Your task to perform on an android device: View the shopping cart on amazon.com. Search for usb-b on amazon.com, select the first entry, add it to the cart, then select checkout. Image 0: 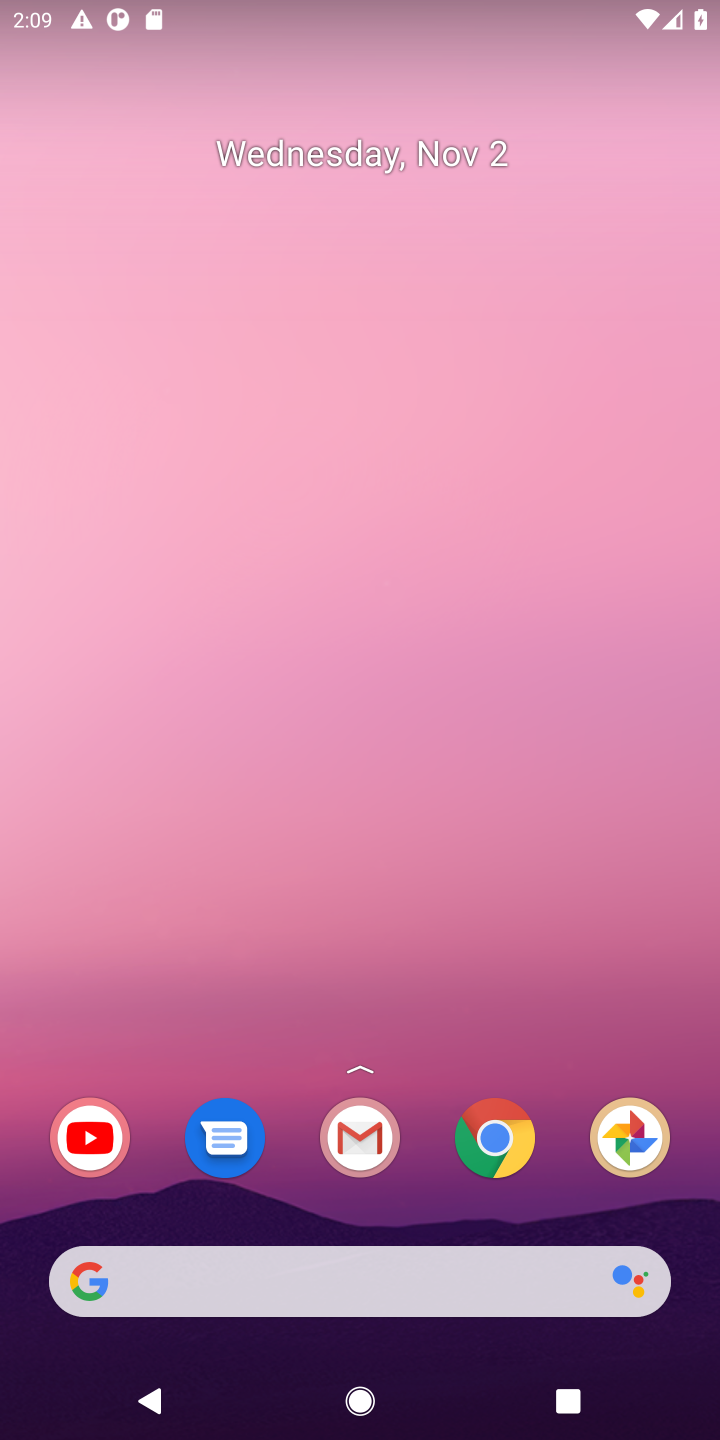
Step 0: press home button
Your task to perform on an android device: View the shopping cart on amazon.com. Search for usb-b on amazon.com, select the first entry, add it to the cart, then select checkout. Image 1: 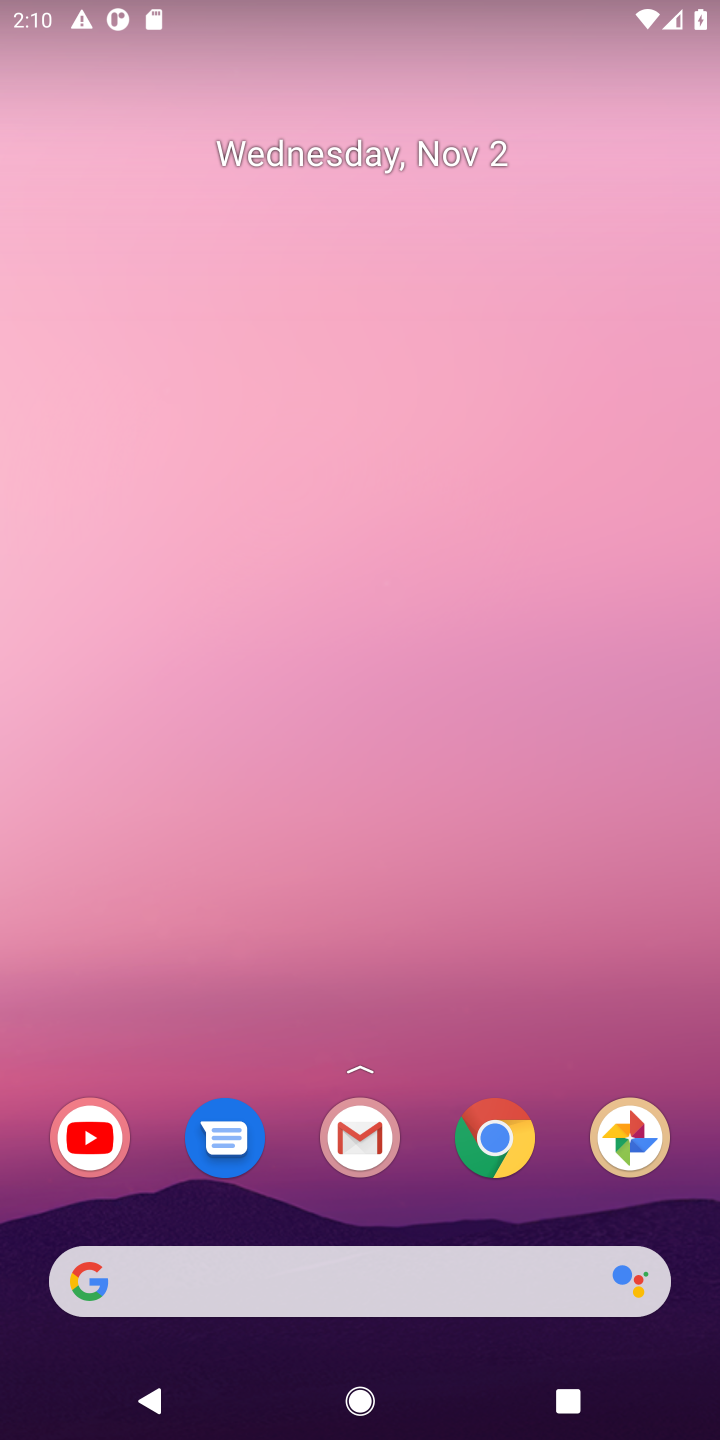
Step 1: click (136, 1274)
Your task to perform on an android device: View the shopping cart on amazon.com. Search for usb-b on amazon.com, select the first entry, add it to the cart, then select checkout. Image 2: 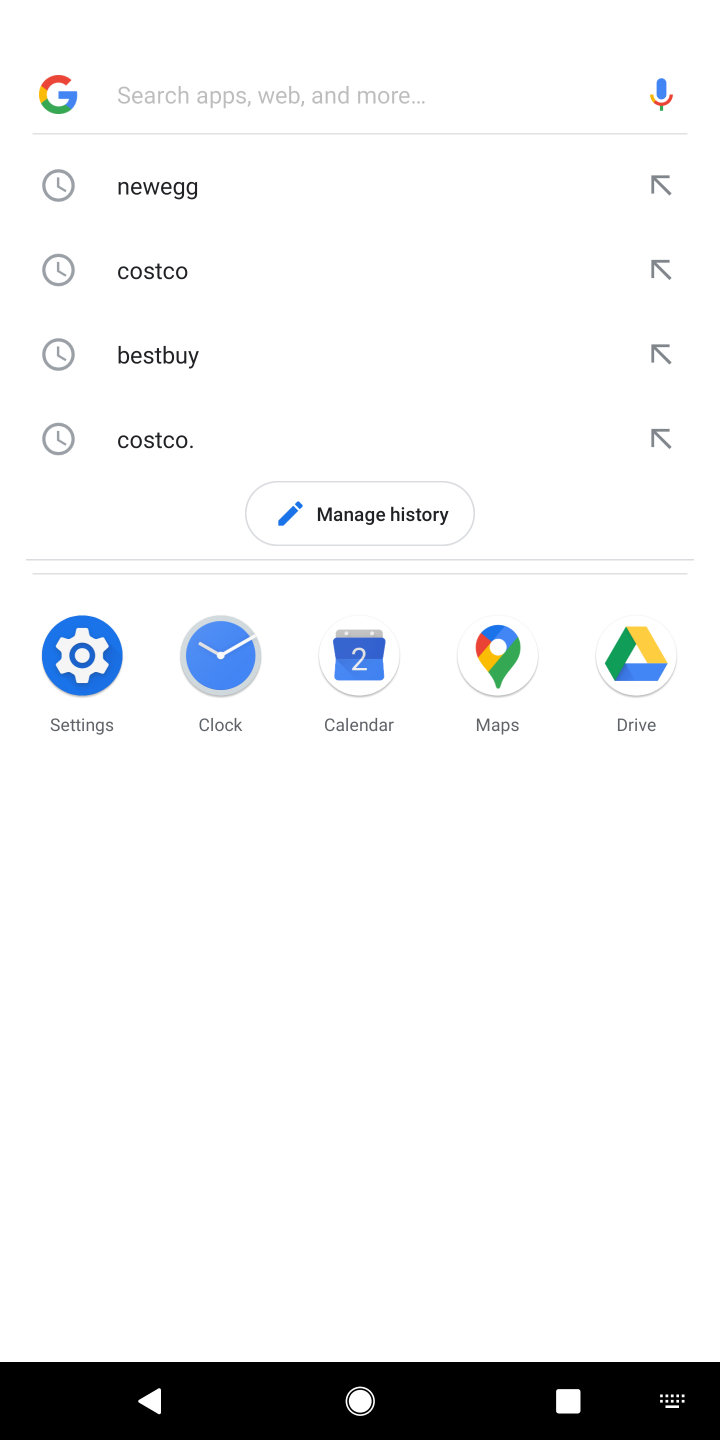
Step 2: type " amazon.com"
Your task to perform on an android device: View the shopping cart on amazon.com. Search for usb-b on amazon.com, select the first entry, add it to the cart, then select checkout. Image 3: 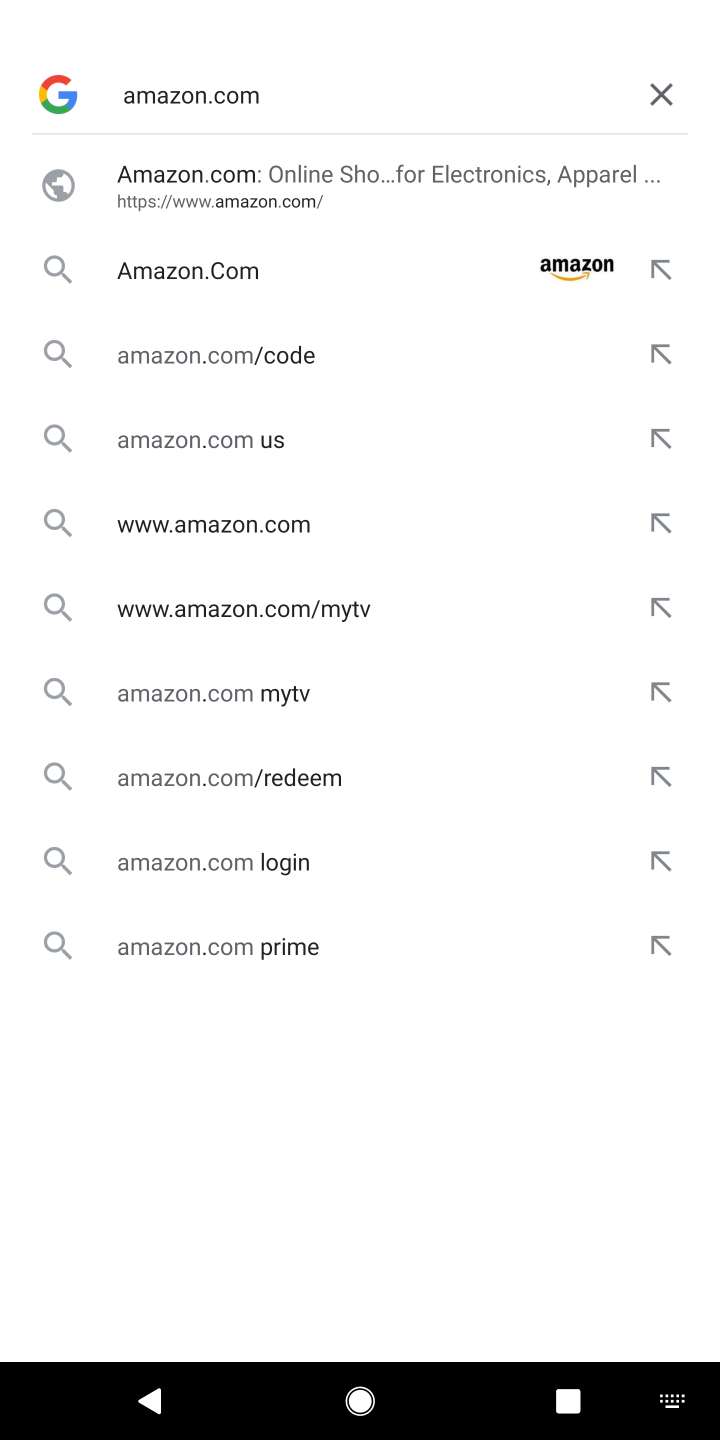
Step 3: press enter
Your task to perform on an android device: View the shopping cart on amazon.com. Search for usb-b on amazon.com, select the first entry, add it to the cart, then select checkout. Image 4: 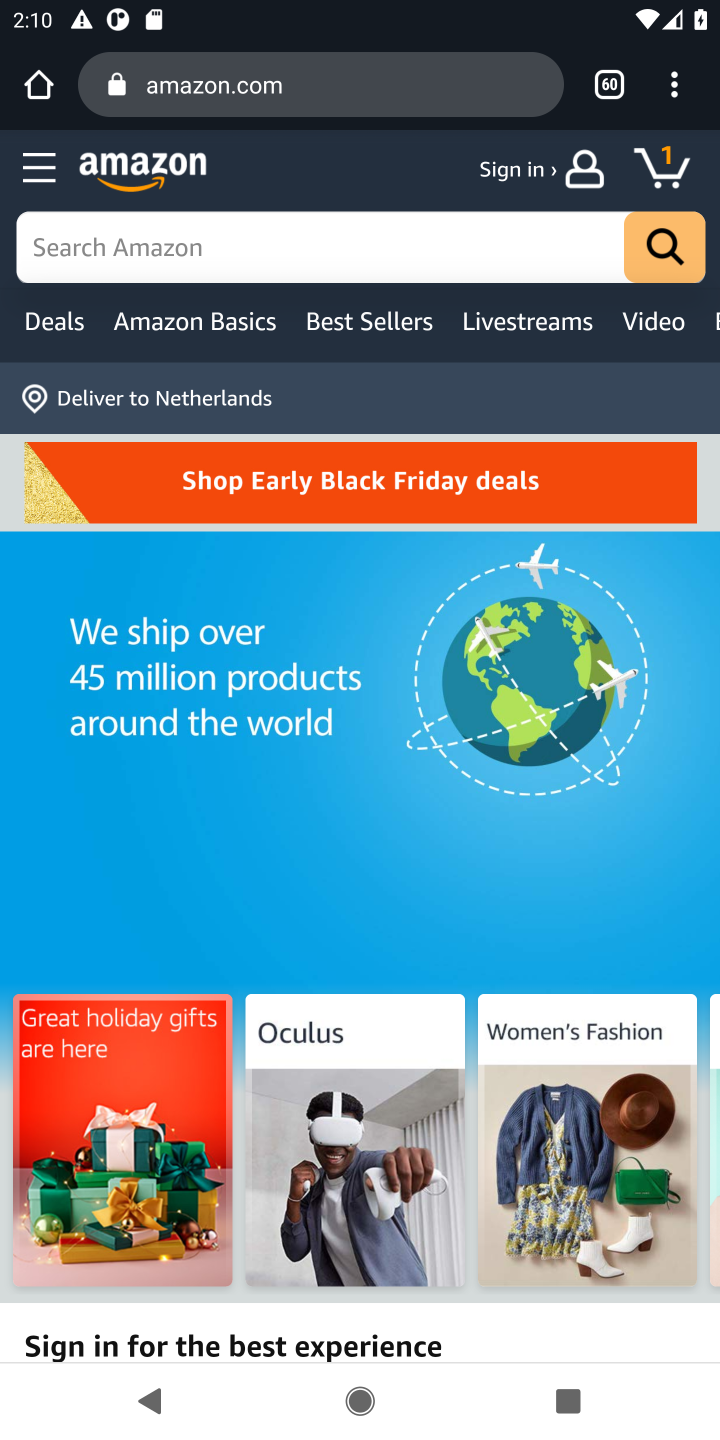
Step 4: click (676, 164)
Your task to perform on an android device: View the shopping cart on amazon.com. Search for usb-b on amazon.com, select the first entry, add it to the cart, then select checkout. Image 5: 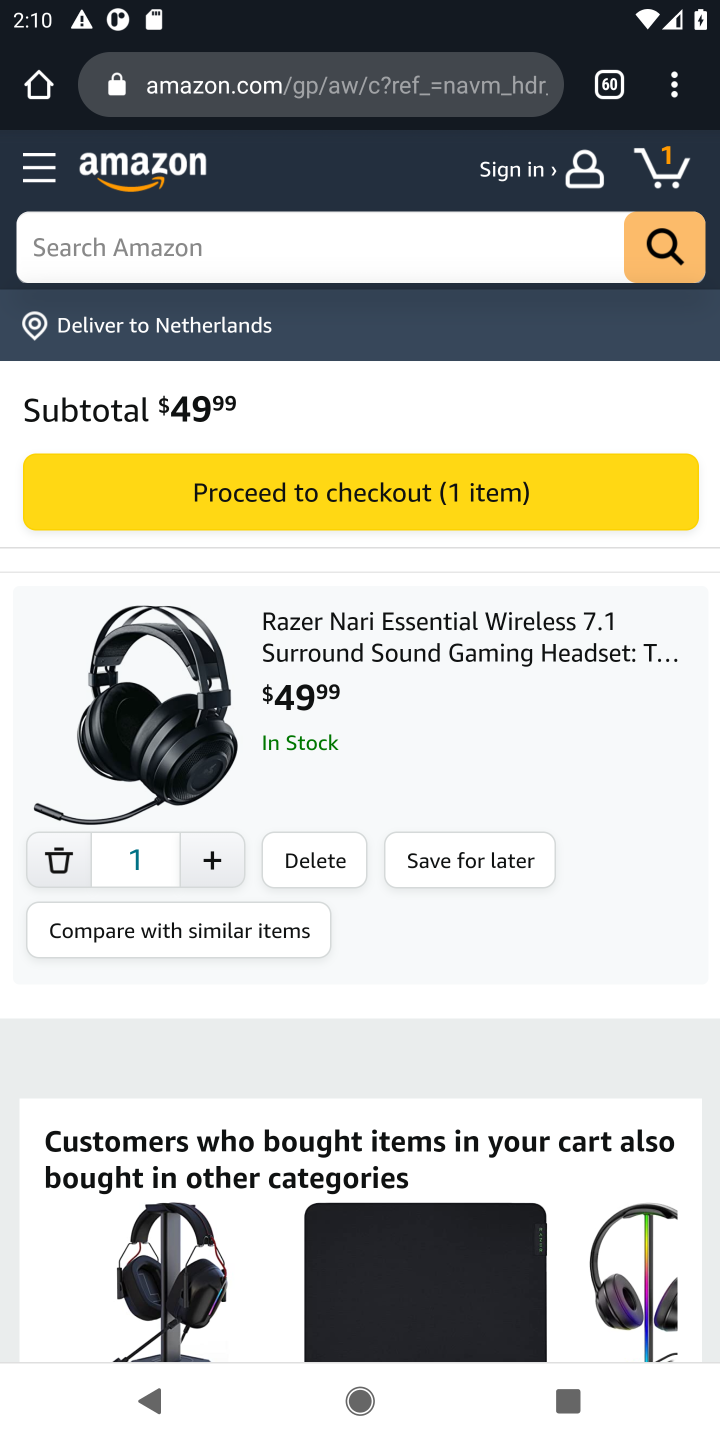
Step 5: click (180, 245)
Your task to perform on an android device: View the shopping cart on amazon.com. Search for usb-b on amazon.com, select the first entry, add it to the cart, then select checkout. Image 6: 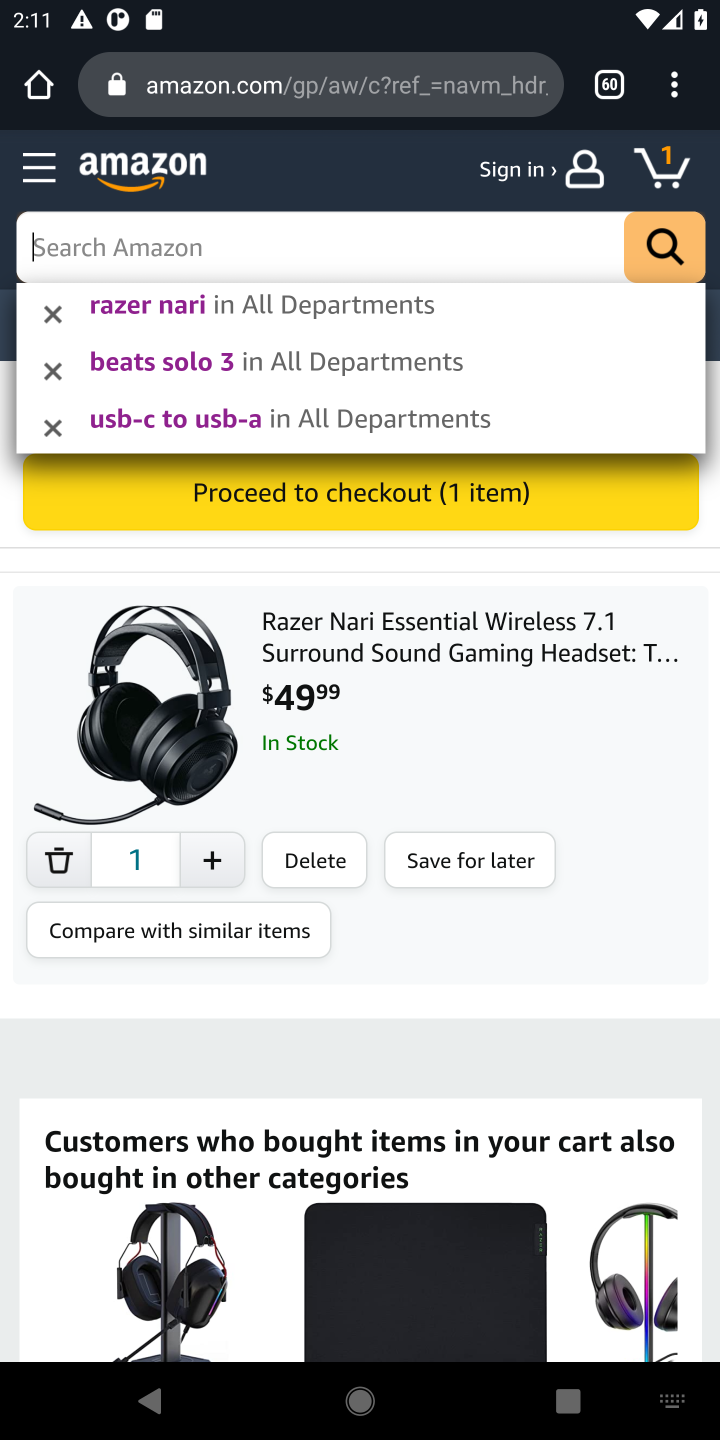
Step 6: type " usb-b"
Your task to perform on an android device: View the shopping cart on amazon.com. Search for usb-b on amazon.com, select the first entry, add it to the cart, then select checkout. Image 7: 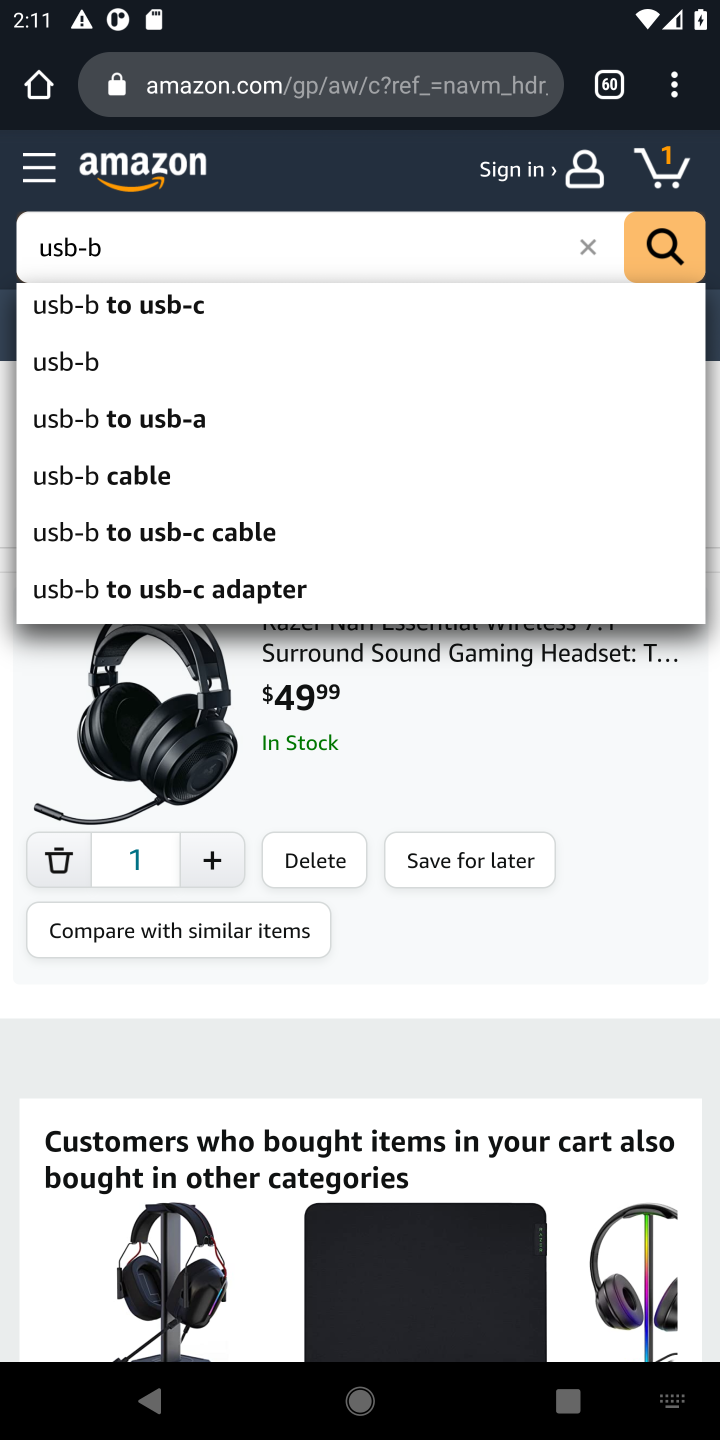
Step 7: click (661, 244)
Your task to perform on an android device: View the shopping cart on amazon.com. Search for usb-b on amazon.com, select the first entry, add it to the cart, then select checkout. Image 8: 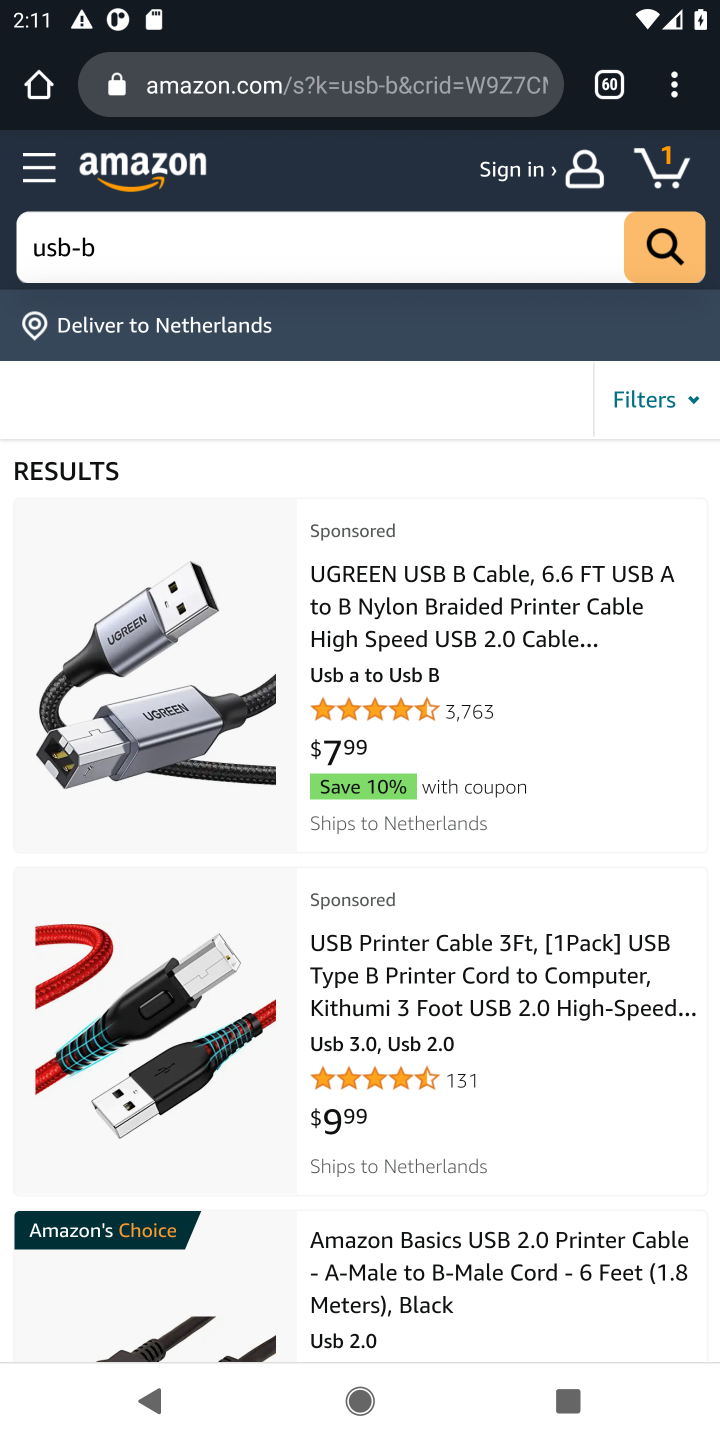
Step 8: drag from (421, 1111) to (485, 834)
Your task to perform on an android device: View the shopping cart on amazon.com. Search for usb-b on amazon.com, select the first entry, add it to the cart, then select checkout. Image 9: 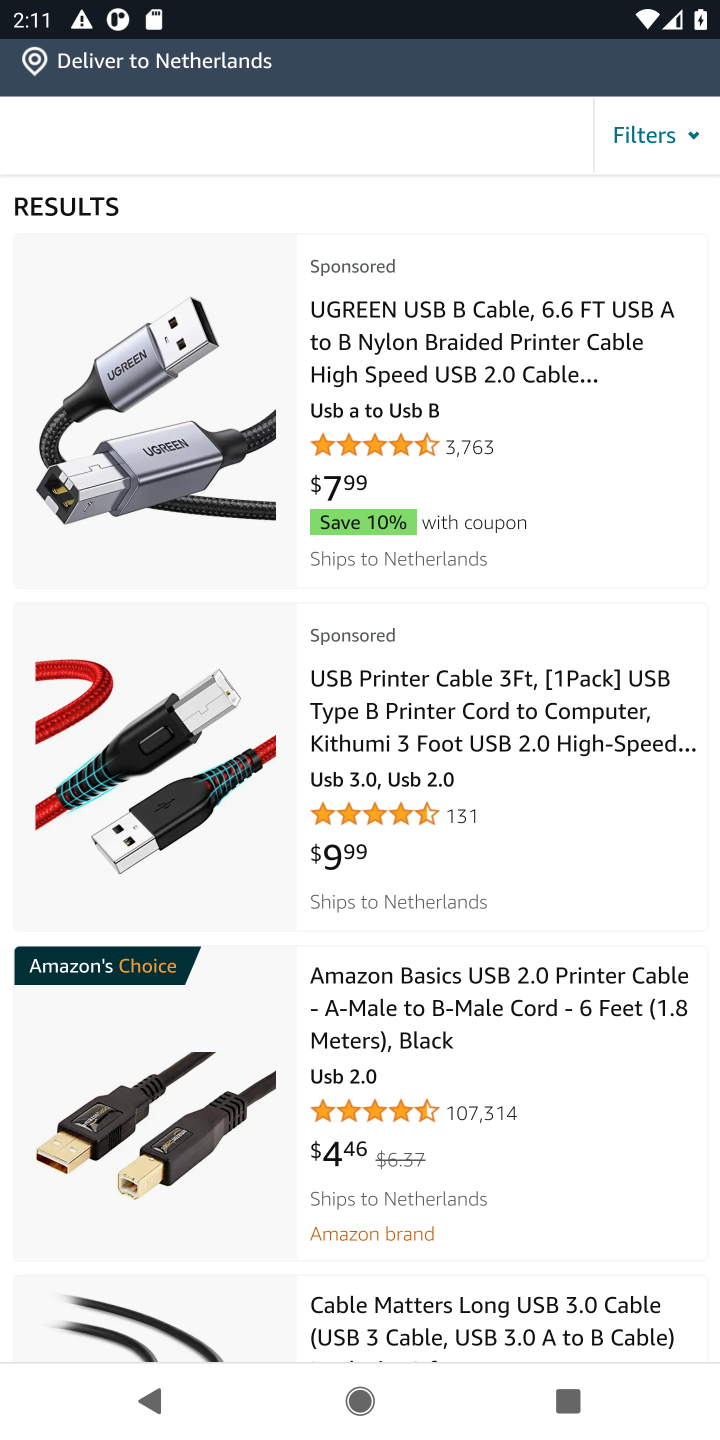
Step 9: click (488, 372)
Your task to perform on an android device: View the shopping cart on amazon.com. Search for usb-b on amazon.com, select the first entry, add it to the cart, then select checkout. Image 10: 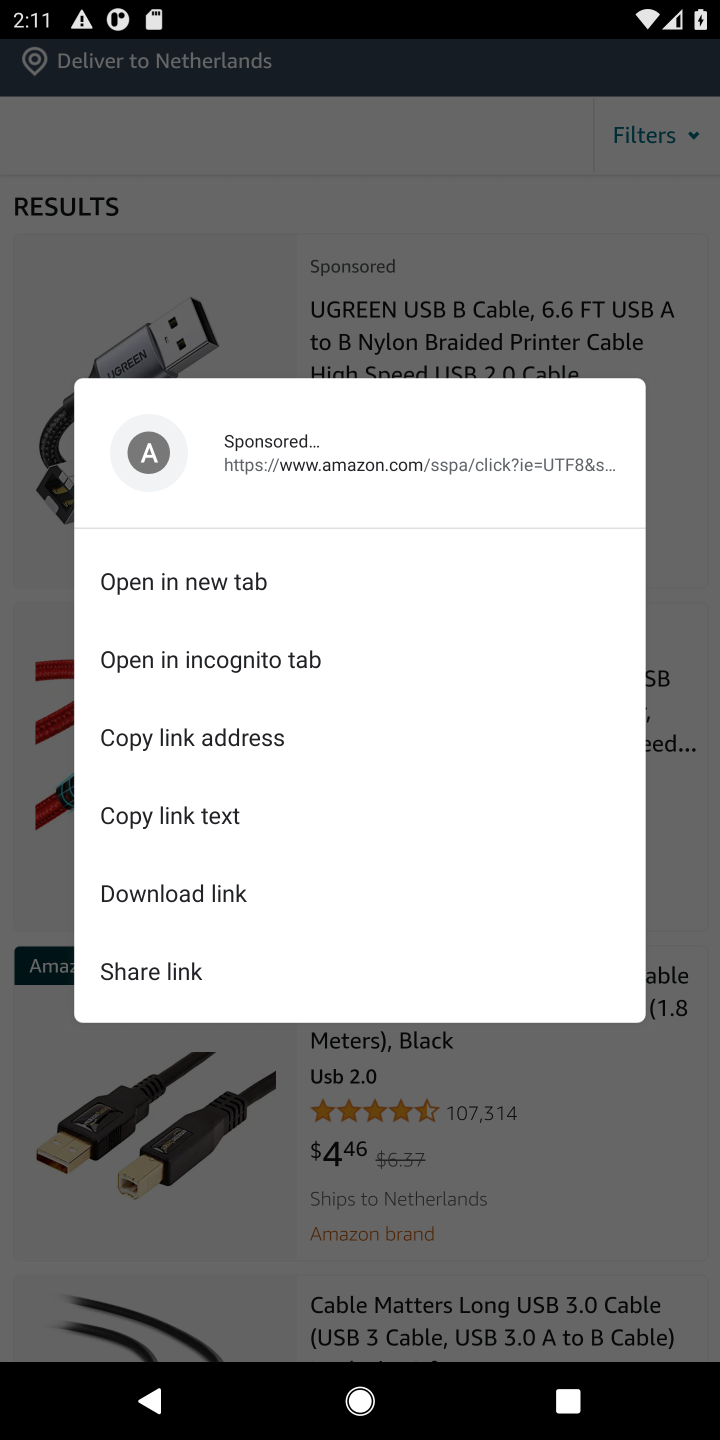
Step 10: click (673, 549)
Your task to perform on an android device: View the shopping cart on amazon.com. Search for usb-b on amazon.com, select the first entry, add it to the cart, then select checkout. Image 11: 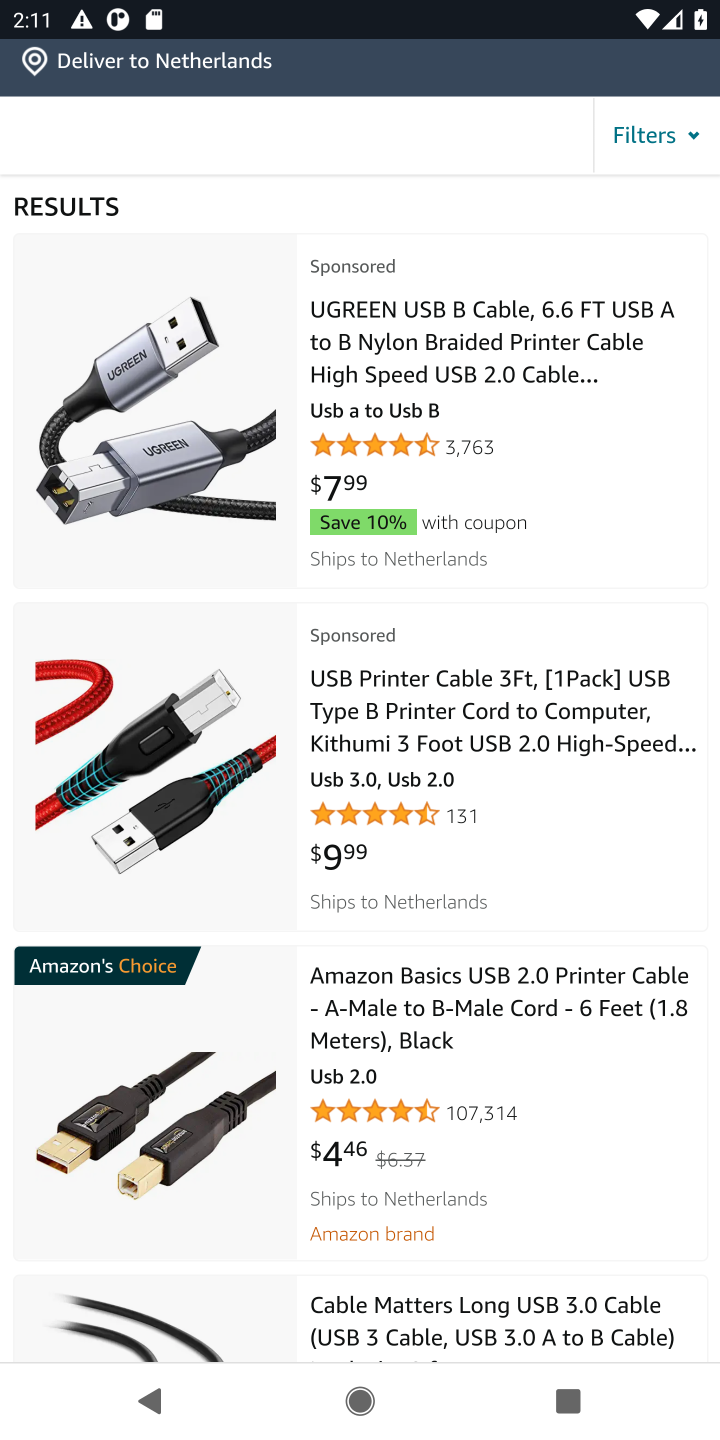
Step 11: click (414, 384)
Your task to perform on an android device: View the shopping cart on amazon.com. Search for usb-b on amazon.com, select the first entry, add it to the cart, then select checkout. Image 12: 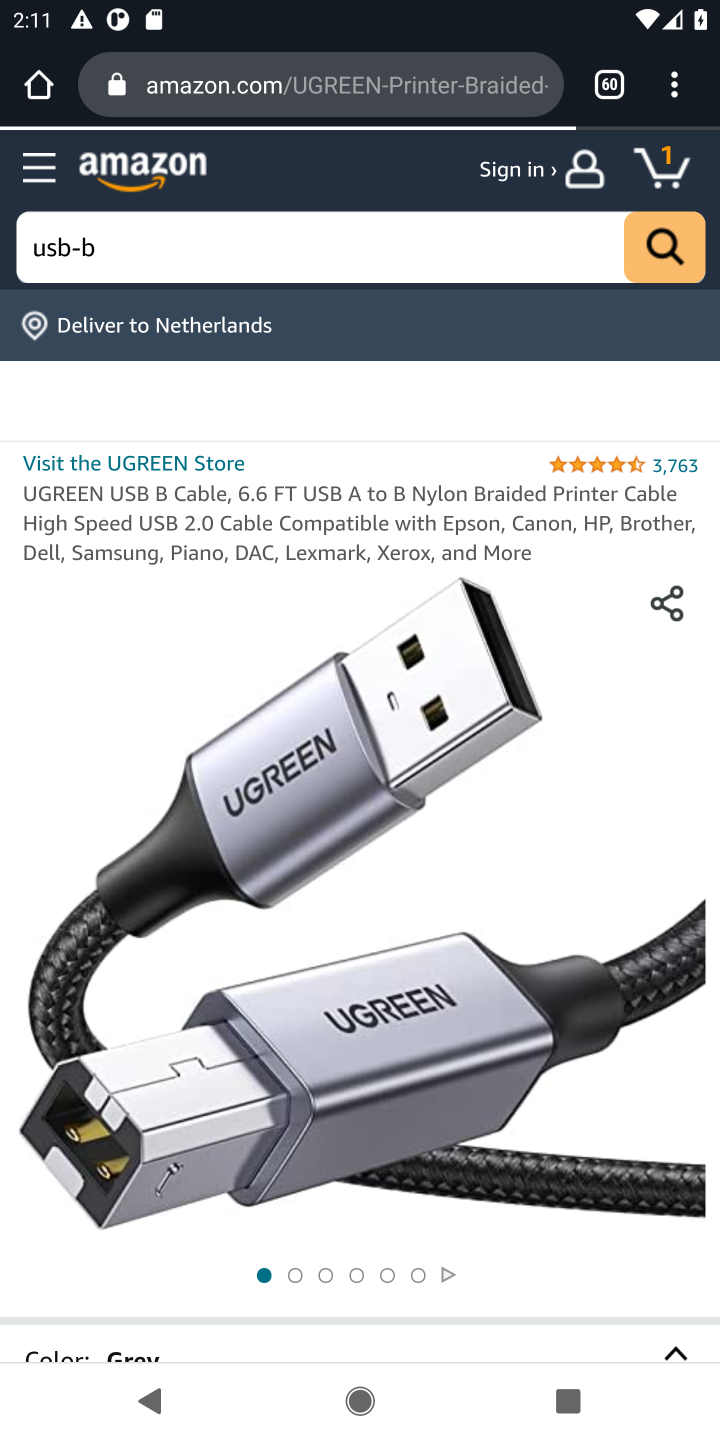
Step 12: drag from (469, 1028) to (496, 665)
Your task to perform on an android device: View the shopping cart on amazon.com. Search for usb-b on amazon.com, select the first entry, add it to the cart, then select checkout. Image 13: 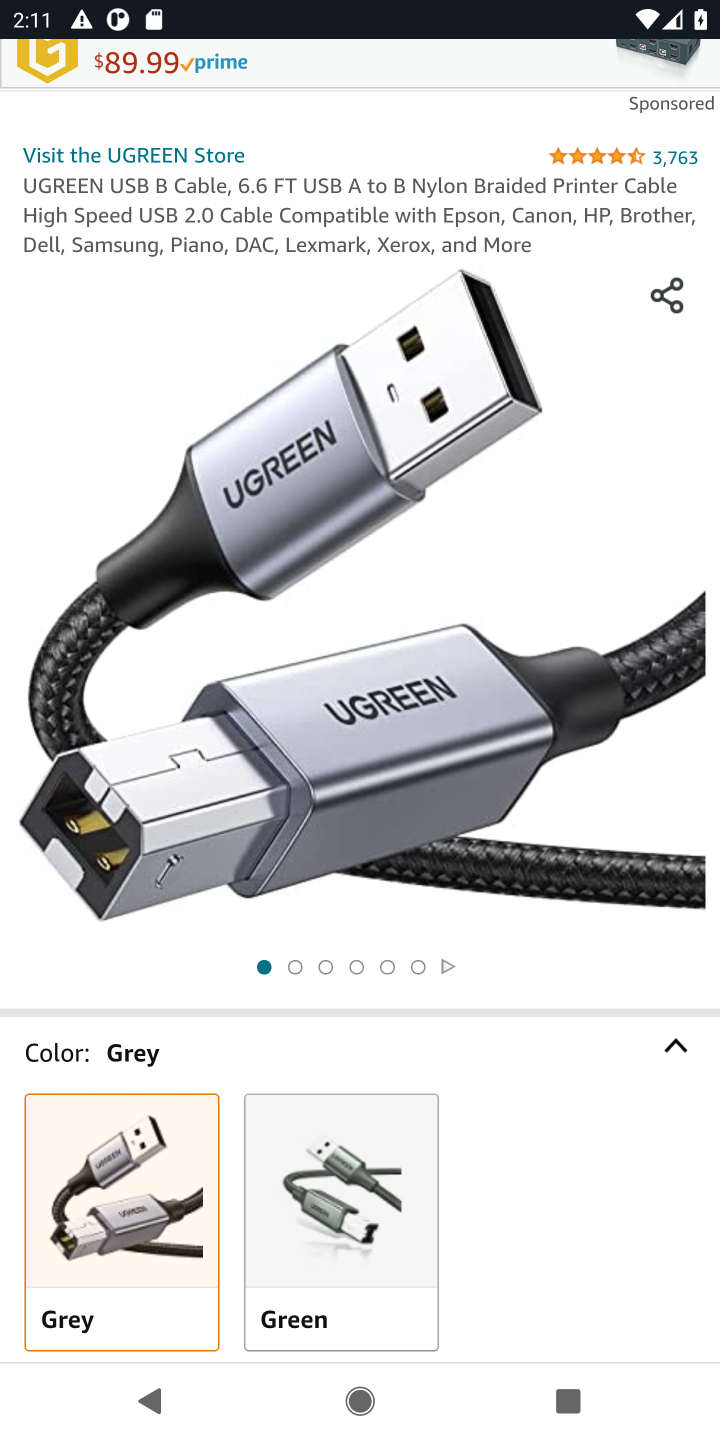
Step 13: drag from (490, 970) to (505, 682)
Your task to perform on an android device: View the shopping cart on amazon.com. Search for usb-b on amazon.com, select the first entry, add it to the cart, then select checkout. Image 14: 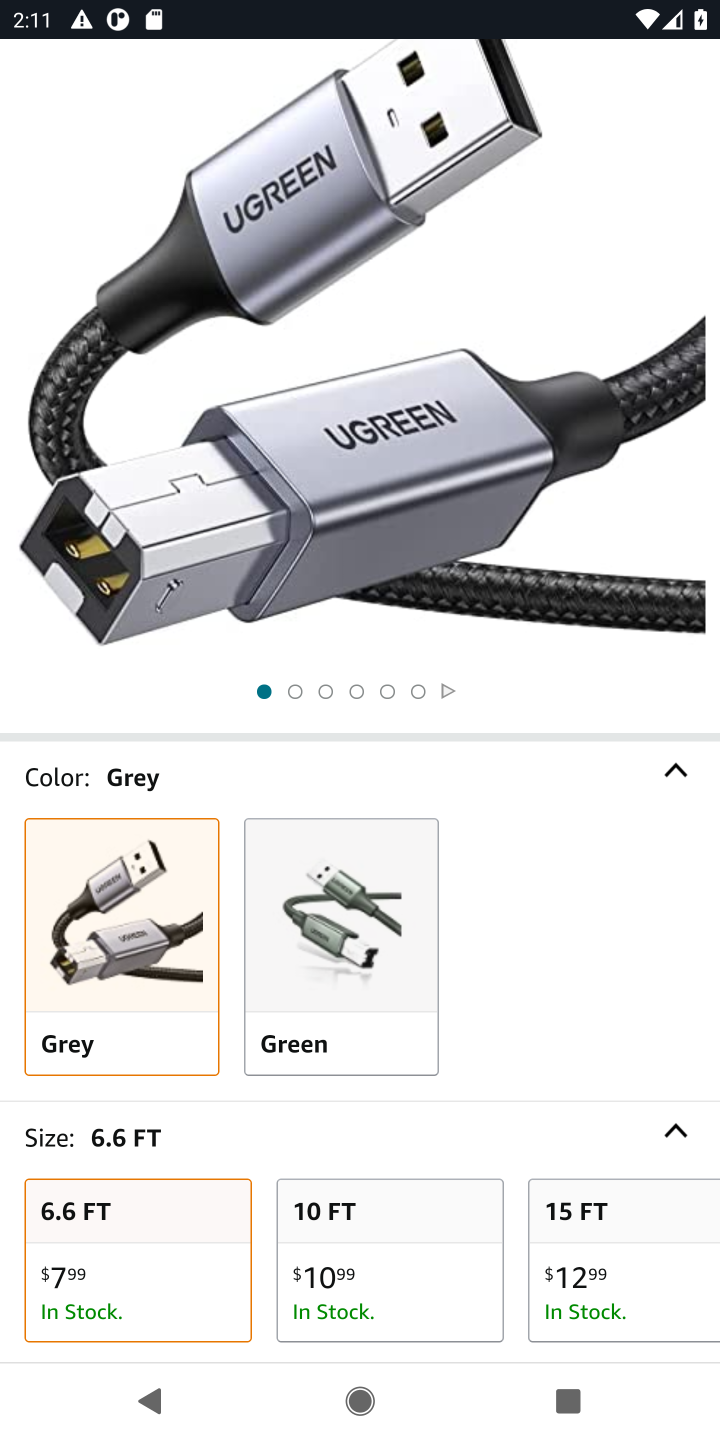
Step 14: drag from (475, 1134) to (485, 506)
Your task to perform on an android device: View the shopping cart on amazon.com. Search for usb-b on amazon.com, select the first entry, add it to the cart, then select checkout. Image 15: 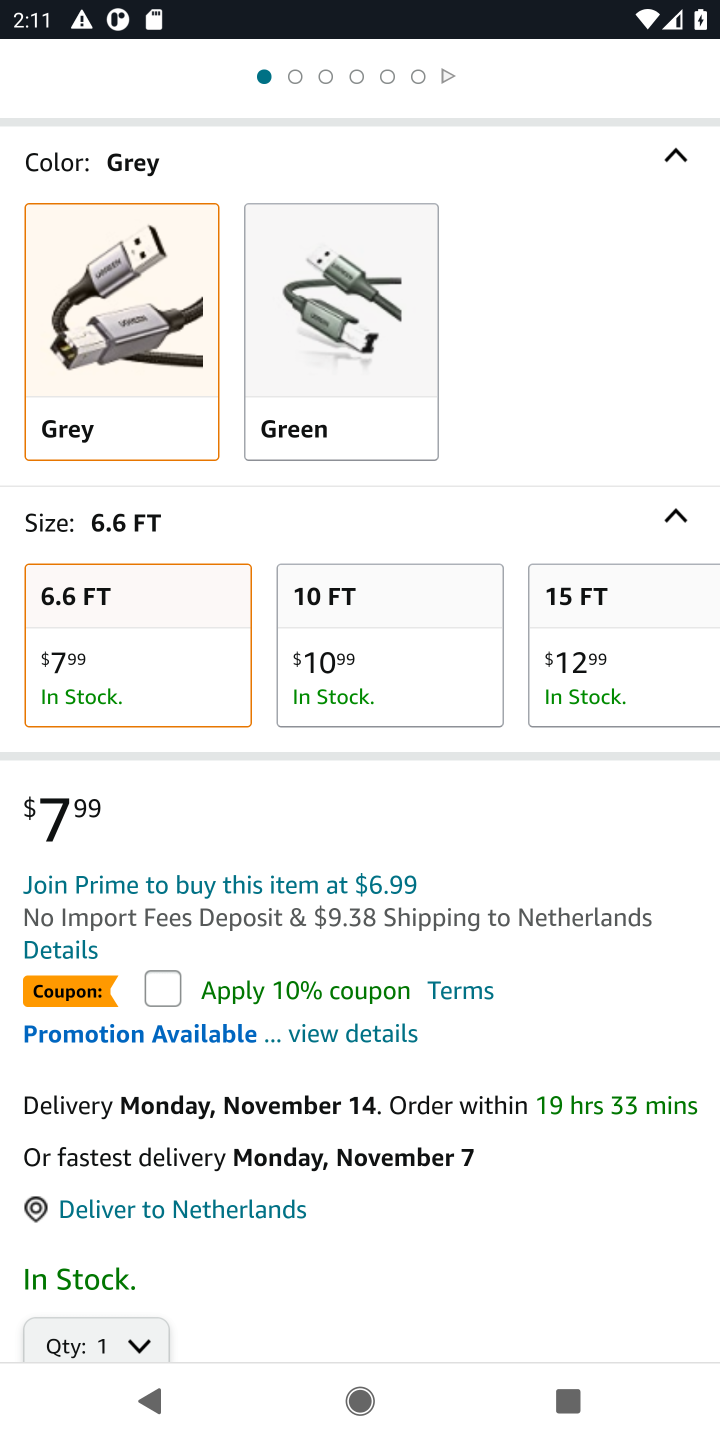
Step 15: drag from (514, 999) to (512, 564)
Your task to perform on an android device: View the shopping cart on amazon.com. Search for usb-b on amazon.com, select the first entry, add it to the cart, then select checkout. Image 16: 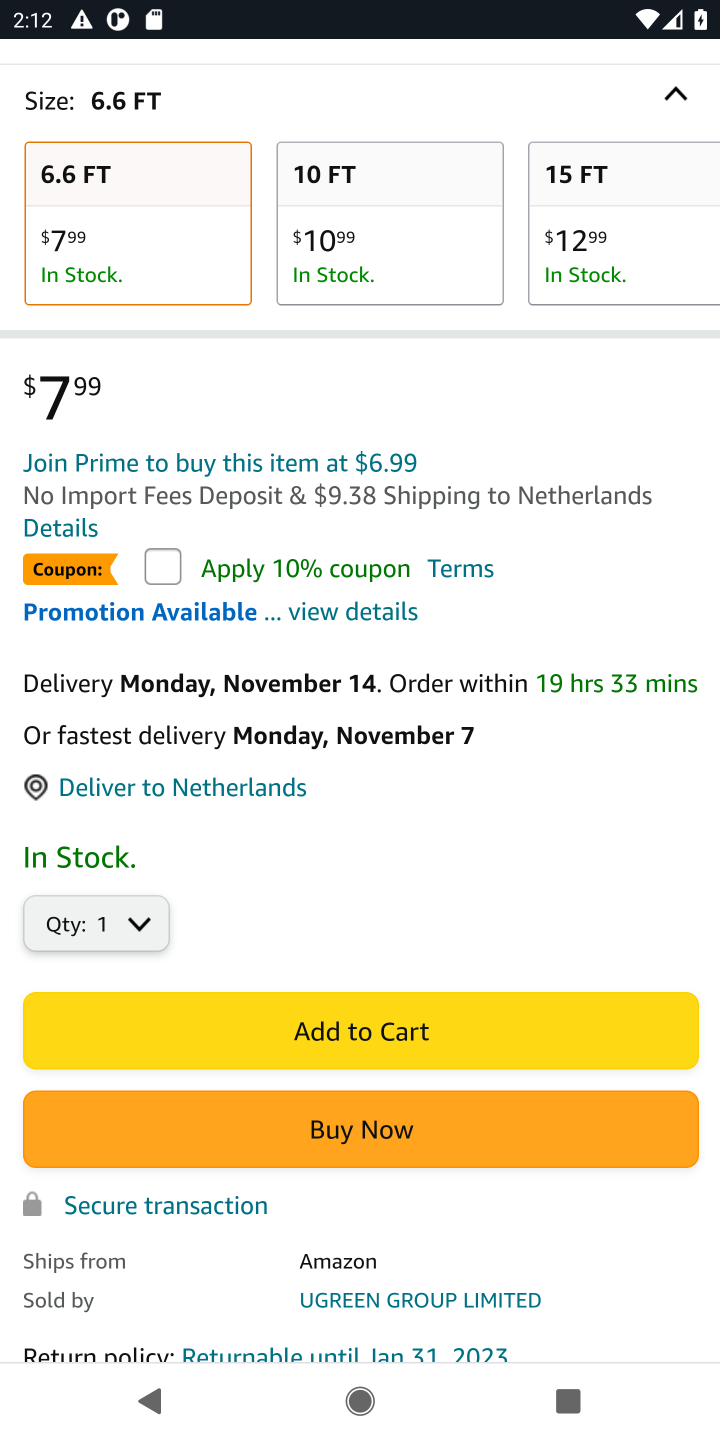
Step 16: click (489, 1036)
Your task to perform on an android device: View the shopping cart on amazon.com. Search for usb-b on amazon.com, select the first entry, add it to the cart, then select checkout. Image 17: 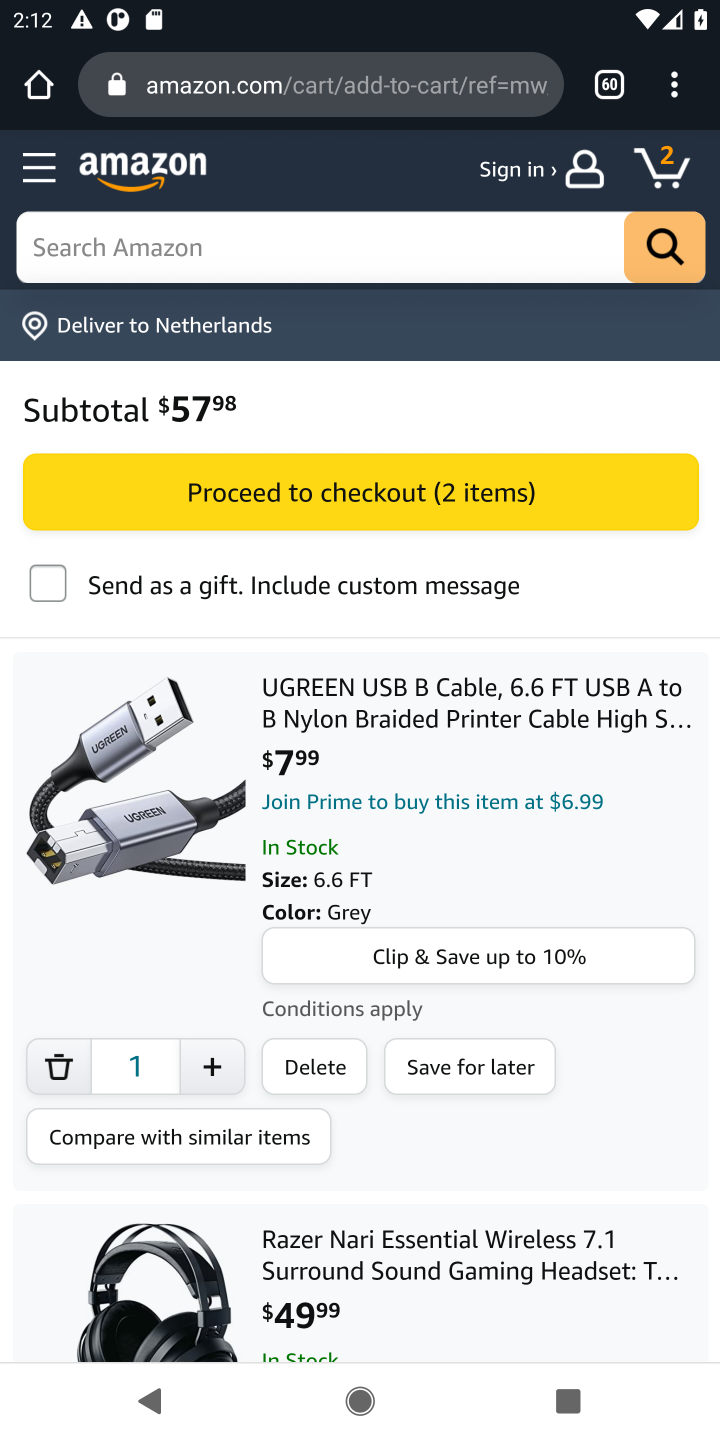
Step 17: click (455, 500)
Your task to perform on an android device: View the shopping cart on amazon.com. Search for usb-b on amazon.com, select the first entry, add it to the cart, then select checkout. Image 18: 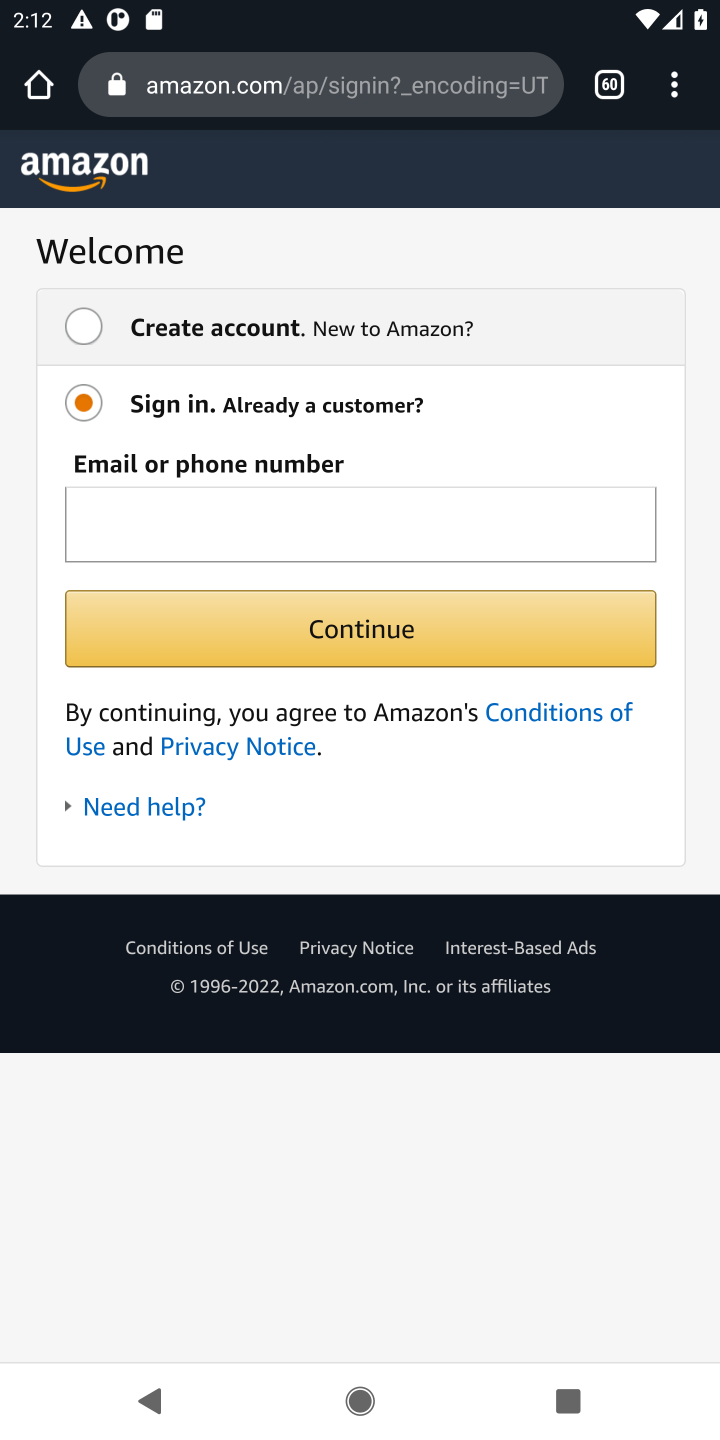
Step 18: task complete